Your task to perform on an android device: Open Yahoo.com Image 0: 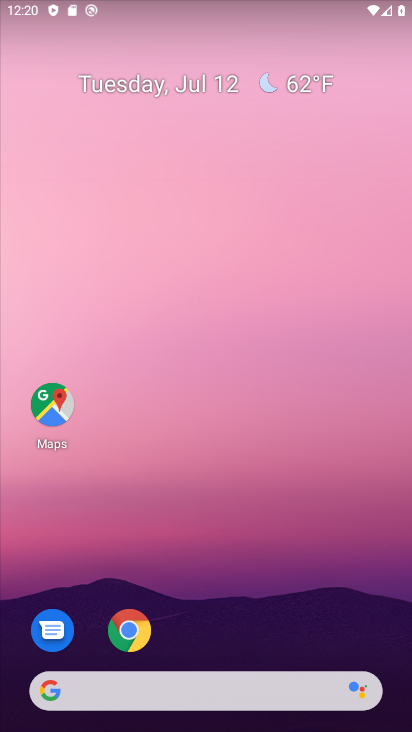
Step 0: click (126, 633)
Your task to perform on an android device: Open Yahoo.com Image 1: 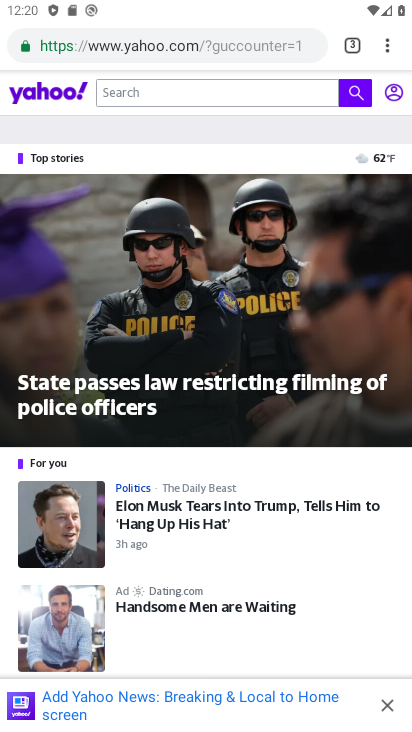
Step 1: click (267, 653)
Your task to perform on an android device: Open Yahoo.com Image 2: 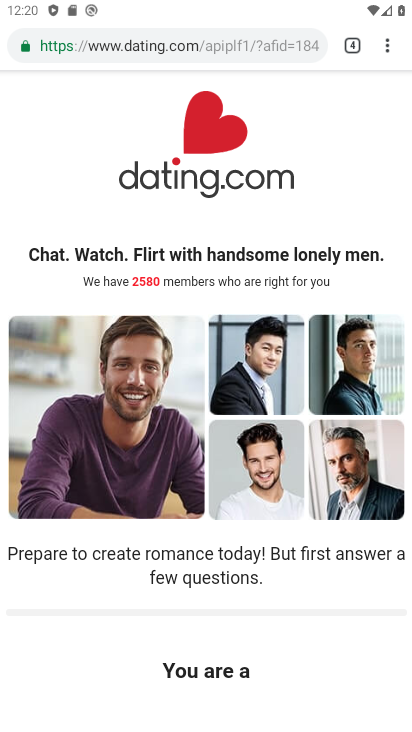
Step 2: task complete